Your task to perform on an android device: toggle airplane mode Image 0: 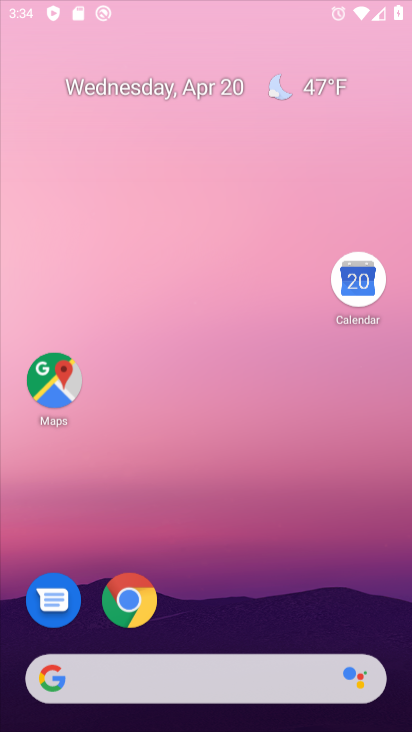
Step 0: click (233, 270)
Your task to perform on an android device: toggle airplane mode Image 1: 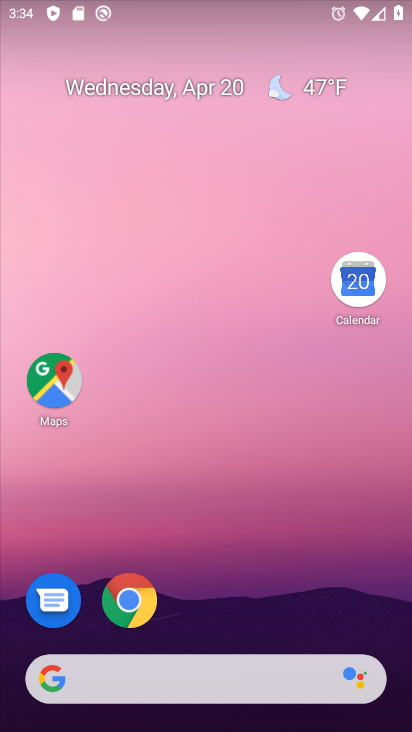
Step 1: drag from (322, 586) to (317, 264)
Your task to perform on an android device: toggle airplane mode Image 2: 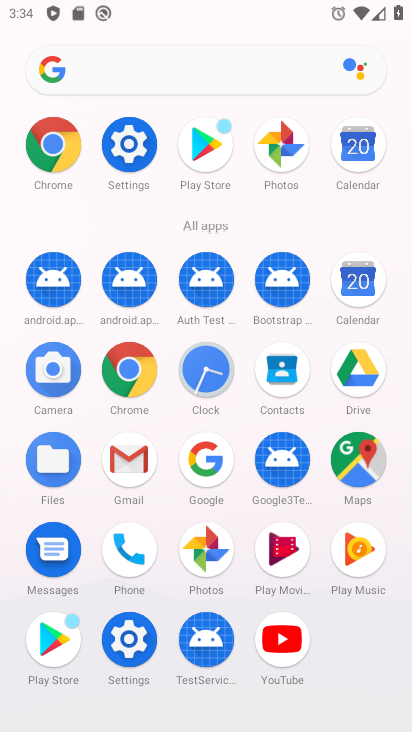
Step 2: click (130, 142)
Your task to perform on an android device: toggle airplane mode Image 3: 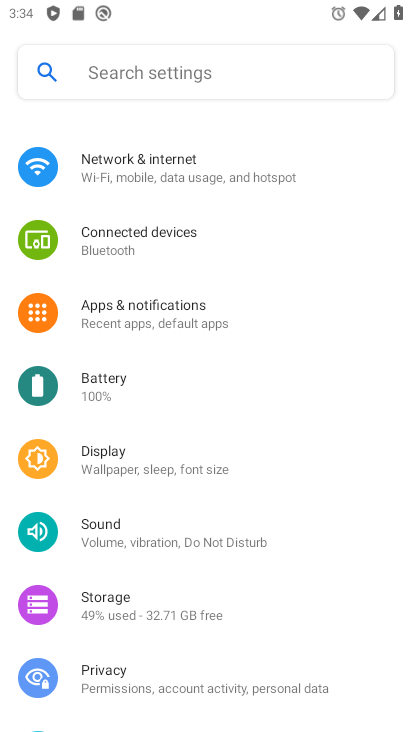
Step 3: click (136, 140)
Your task to perform on an android device: toggle airplane mode Image 4: 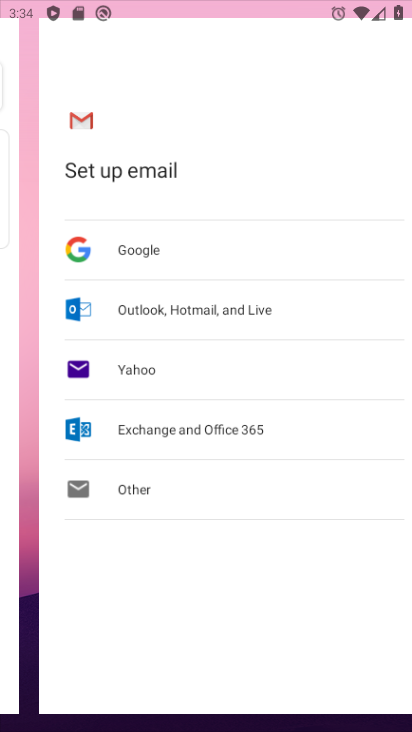
Step 4: click (159, 283)
Your task to perform on an android device: toggle airplane mode Image 5: 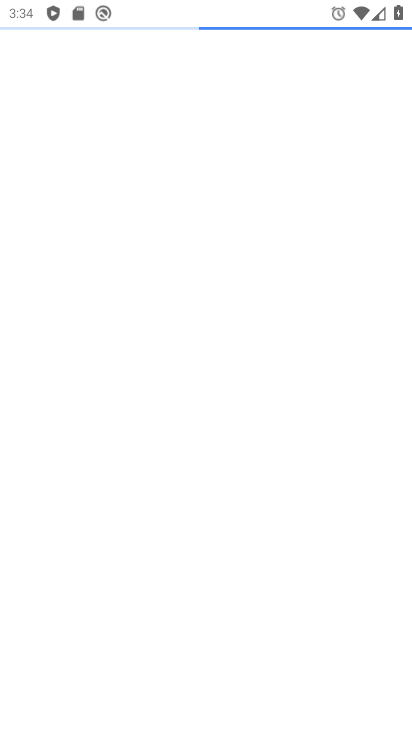
Step 5: press back button
Your task to perform on an android device: toggle airplane mode Image 6: 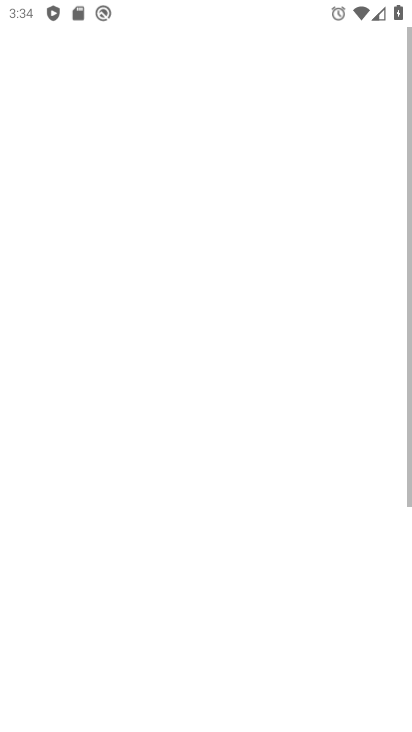
Step 6: press back button
Your task to perform on an android device: toggle airplane mode Image 7: 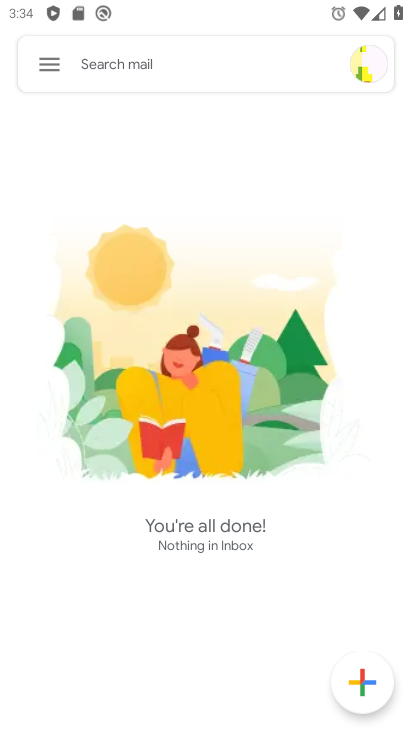
Step 7: press back button
Your task to perform on an android device: toggle airplane mode Image 8: 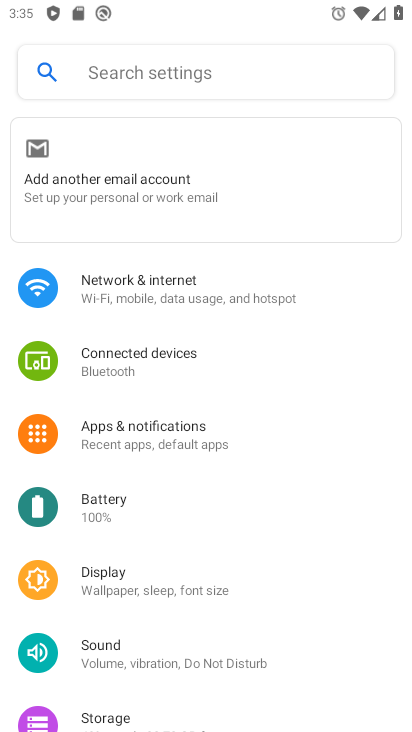
Step 8: click (170, 169)
Your task to perform on an android device: toggle airplane mode Image 9: 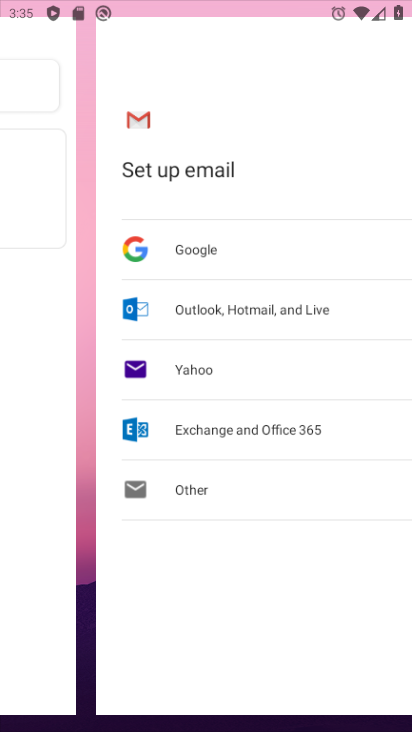
Step 9: click (158, 289)
Your task to perform on an android device: toggle airplane mode Image 10: 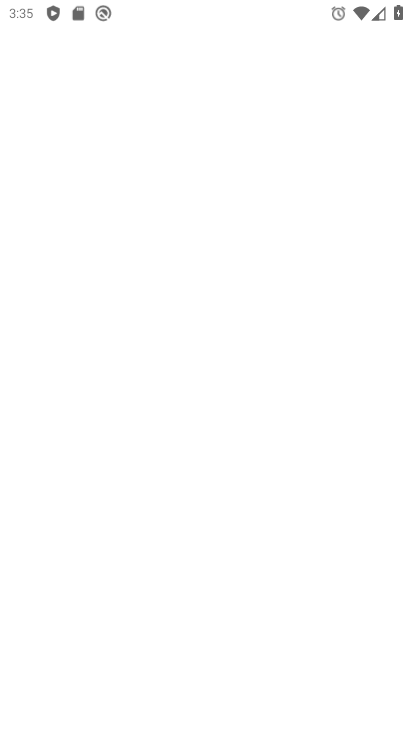
Step 10: press back button
Your task to perform on an android device: toggle airplane mode Image 11: 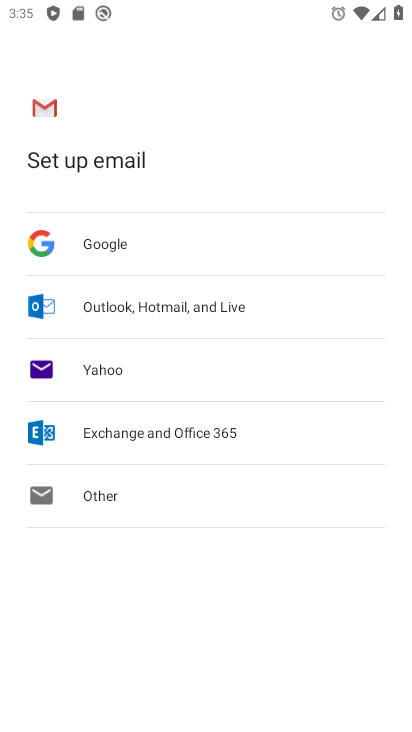
Step 11: press back button
Your task to perform on an android device: toggle airplane mode Image 12: 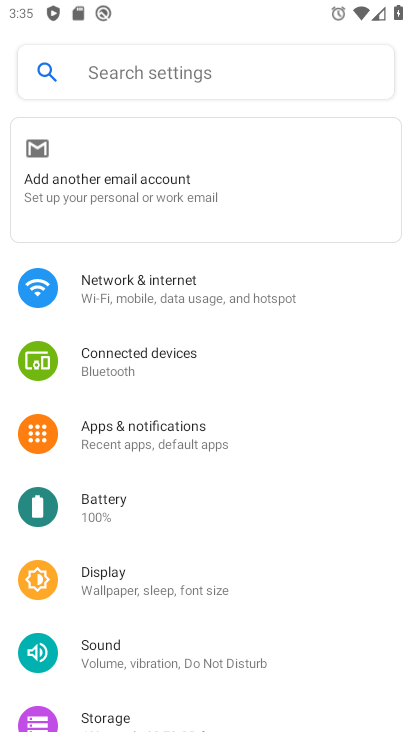
Step 12: click (135, 289)
Your task to perform on an android device: toggle airplane mode Image 13: 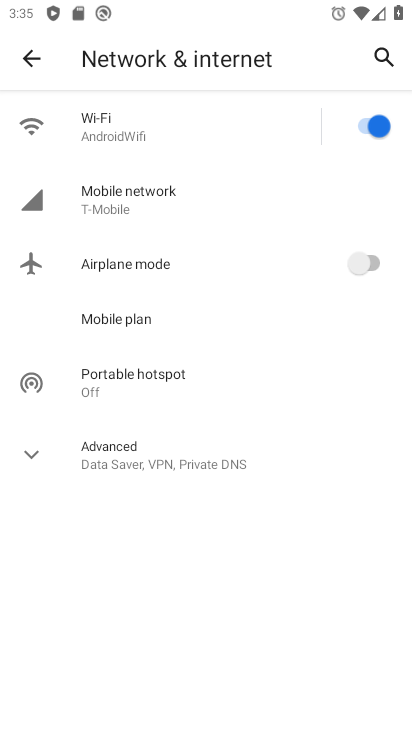
Step 13: click (358, 249)
Your task to perform on an android device: toggle airplane mode Image 14: 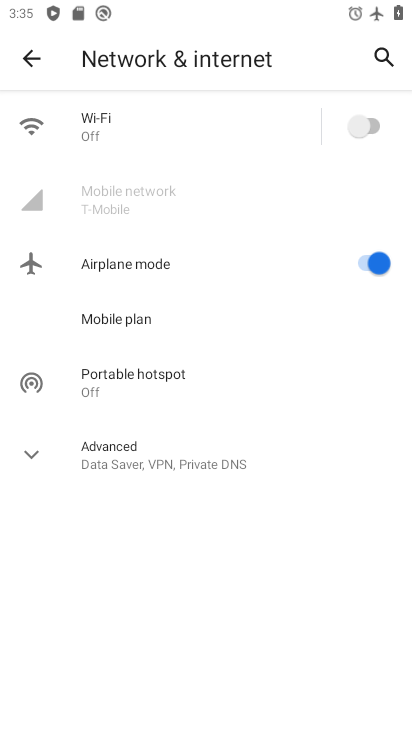
Step 14: task complete